Your task to perform on an android device: Go to accessibility settings Image 0: 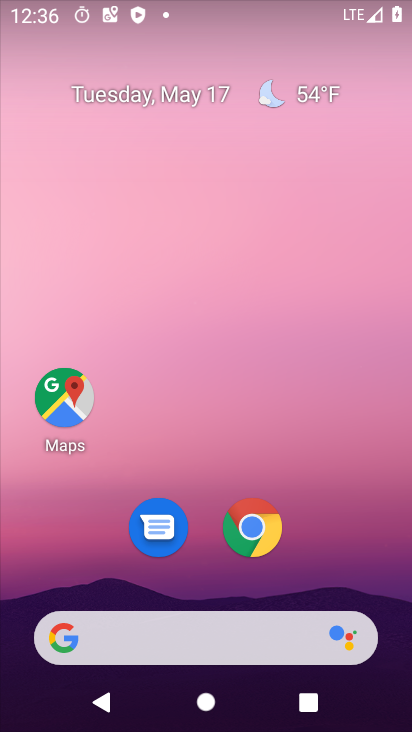
Step 0: drag from (247, 633) to (280, 359)
Your task to perform on an android device: Go to accessibility settings Image 1: 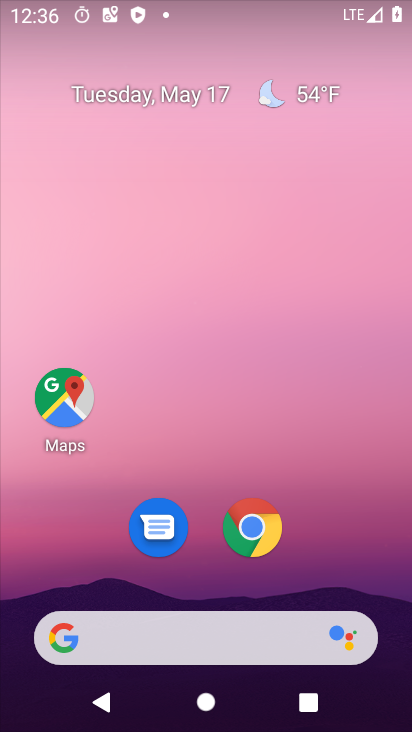
Step 1: drag from (211, 673) to (296, 259)
Your task to perform on an android device: Go to accessibility settings Image 2: 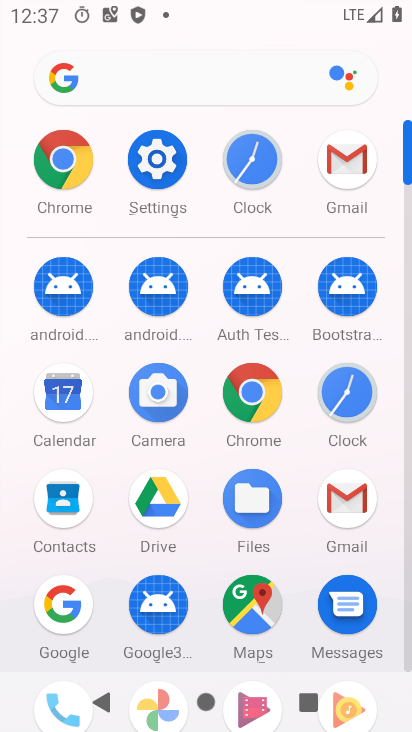
Step 2: click (169, 169)
Your task to perform on an android device: Go to accessibility settings Image 3: 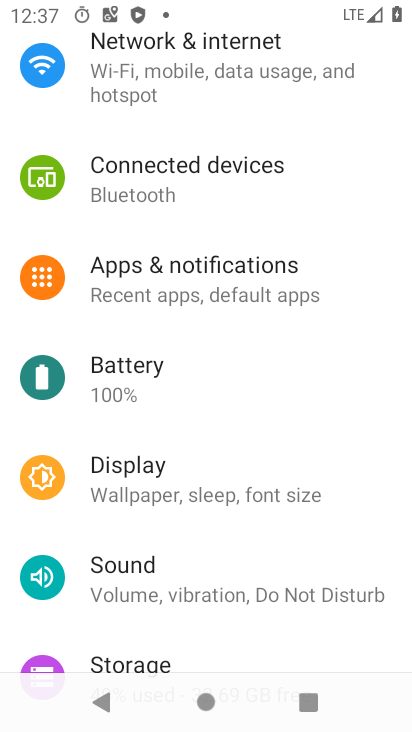
Step 3: drag from (147, 108) to (0, 446)
Your task to perform on an android device: Go to accessibility settings Image 4: 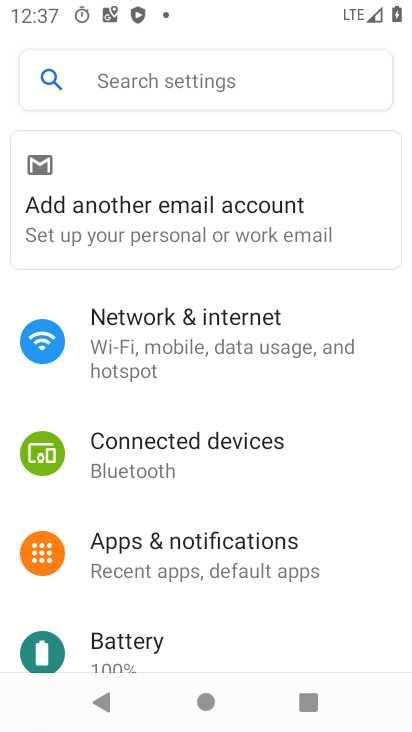
Step 4: click (94, 96)
Your task to perform on an android device: Go to accessibility settings Image 5: 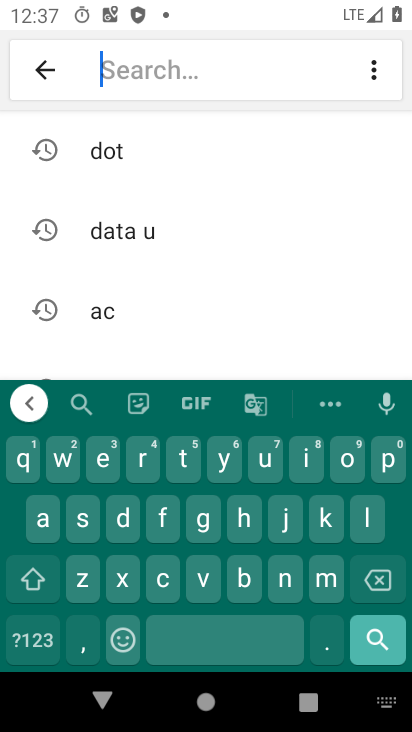
Step 5: click (103, 313)
Your task to perform on an android device: Go to accessibility settings Image 6: 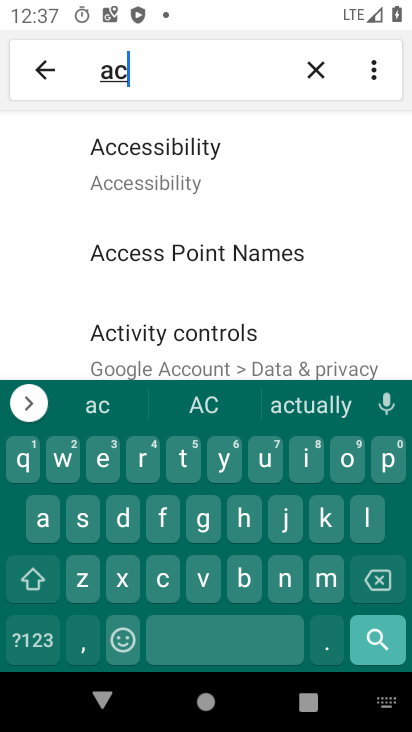
Step 6: click (209, 182)
Your task to perform on an android device: Go to accessibility settings Image 7: 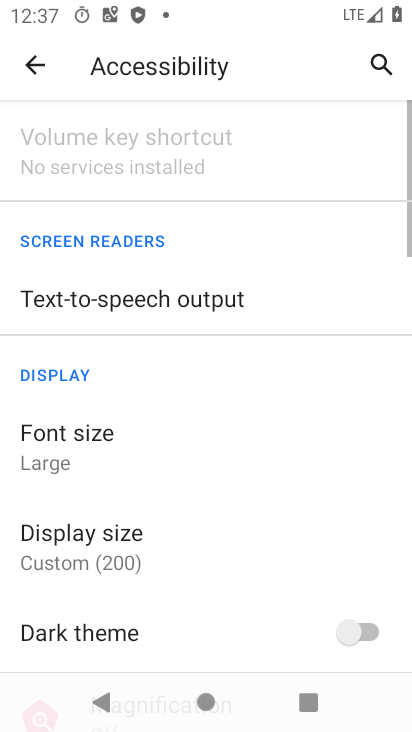
Step 7: task complete